Your task to perform on an android device: empty trash in the gmail app Image 0: 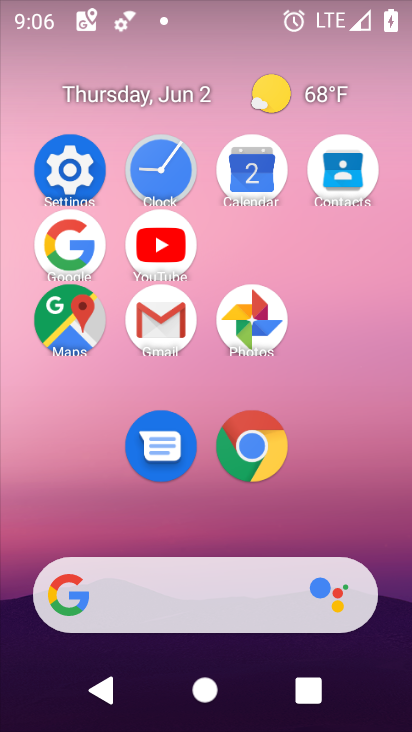
Step 0: click (160, 316)
Your task to perform on an android device: empty trash in the gmail app Image 1: 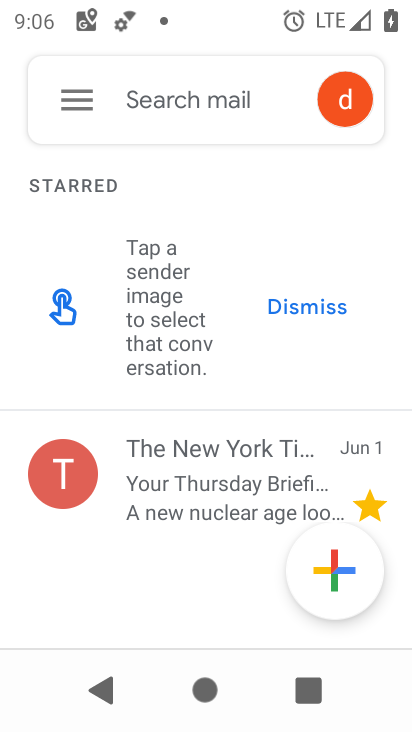
Step 1: click (79, 107)
Your task to perform on an android device: empty trash in the gmail app Image 2: 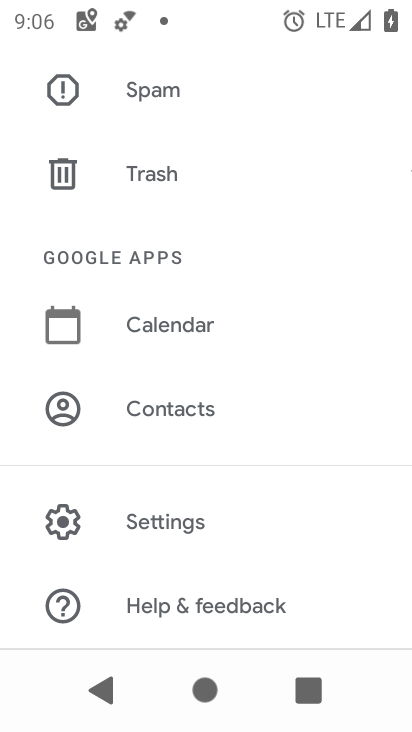
Step 2: click (154, 178)
Your task to perform on an android device: empty trash in the gmail app Image 3: 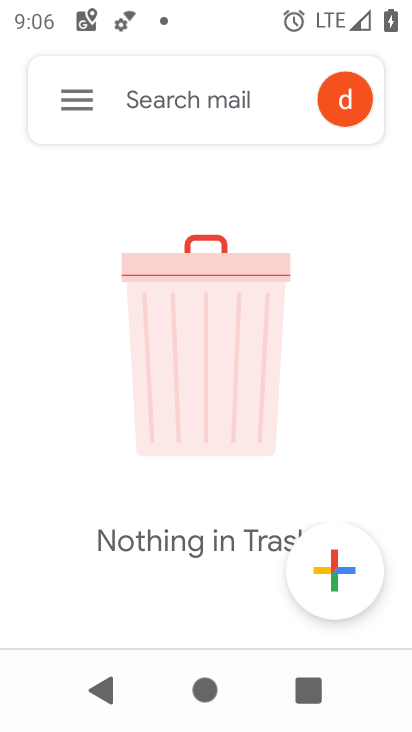
Step 3: task complete